Your task to perform on an android device: set default search engine in the chrome app Image 0: 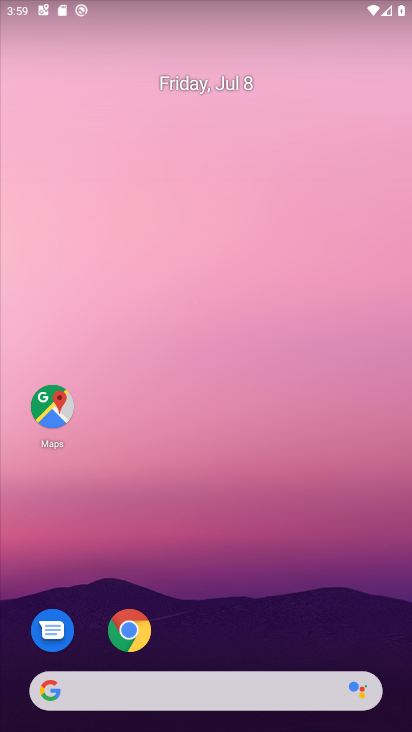
Step 0: drag from (255, 620) to (276, 115)
Your task to perform on an android device: set default search engine in the chrome app Image 1: 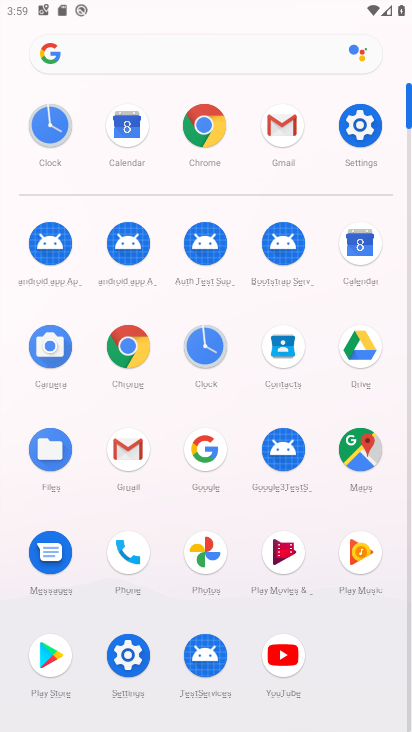
Step 1: click (124, 347)
Your task to perform on an android device: set default search engine in the chrome app Image 2: 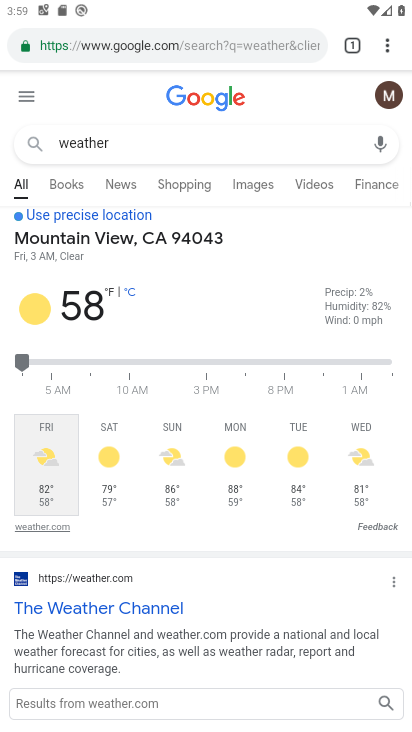
Step 2: click (389, 42)
Your task to perform on an android device: set default search engine in the chrome app Image 3: 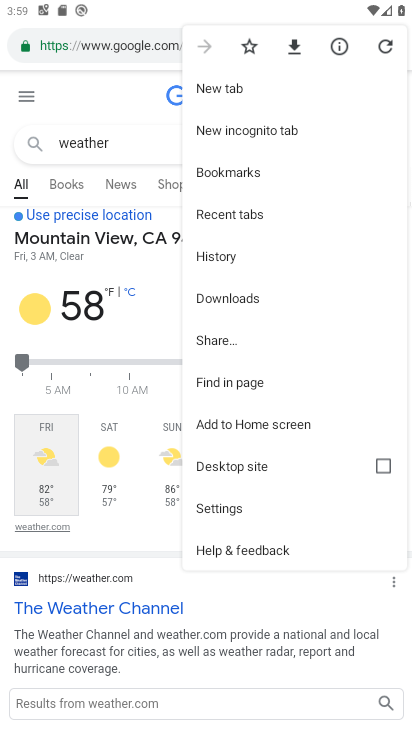
Step 3: click (231, 509)
Your task to perform on an android device: set default search engine in the chrome app Image 4: 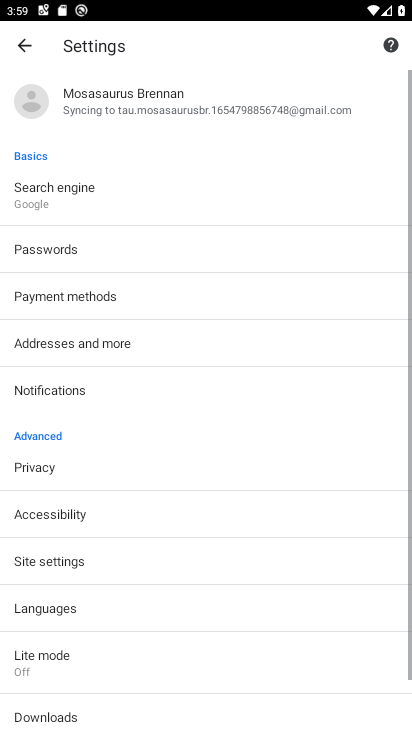
Step 4: click (118, 193)
Your task to perform on an android device: set default search engine in the chrome app Image 5: 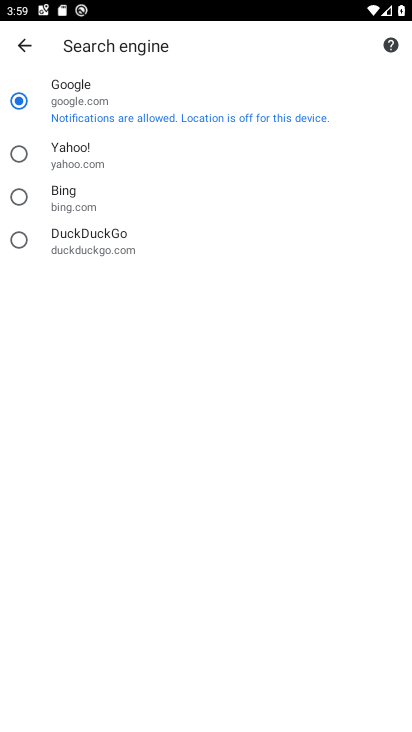
Step 5: task complete